Your task to perform on an android device: change keyboard looks Image 0: 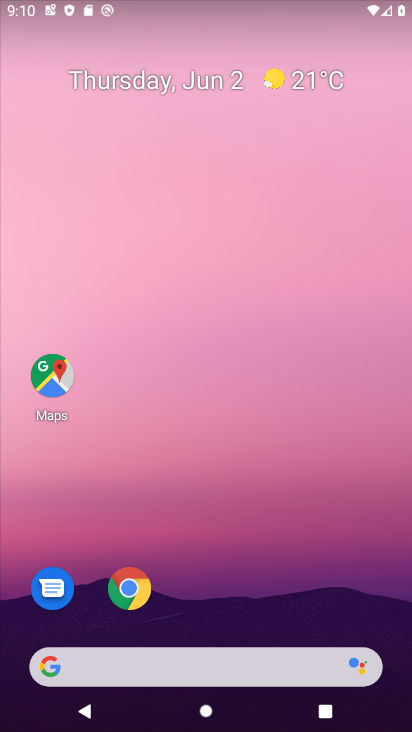
Step 0: click (402, 506)
Your task to perform on an android device: change keyboard looks Image 1: 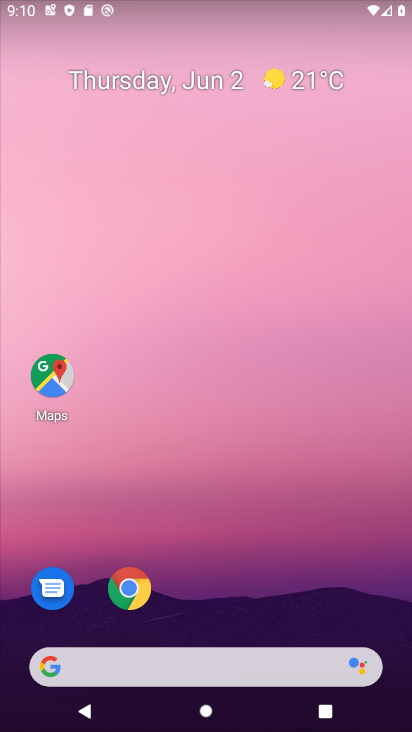
Step 1: drag from (224, 660) to (237, 64)
Your task to perform on an android device: change keyboard looks Image 2: 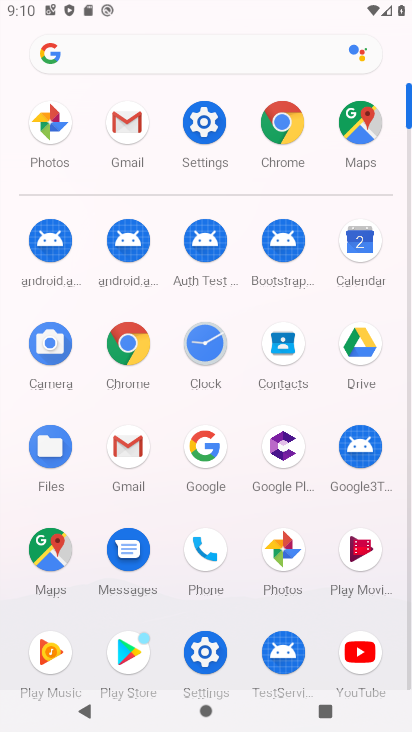
Step 2: click (207, 128)
Your task to perform on an android device: change keyboard looks Image 3: 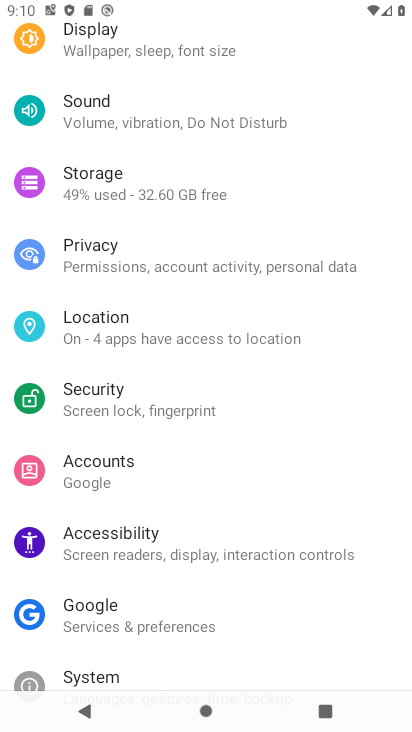
Step 3: drag from (202, 563) to (236, 56)
Your task to perform on an android device: change keyboard looks Image 4: 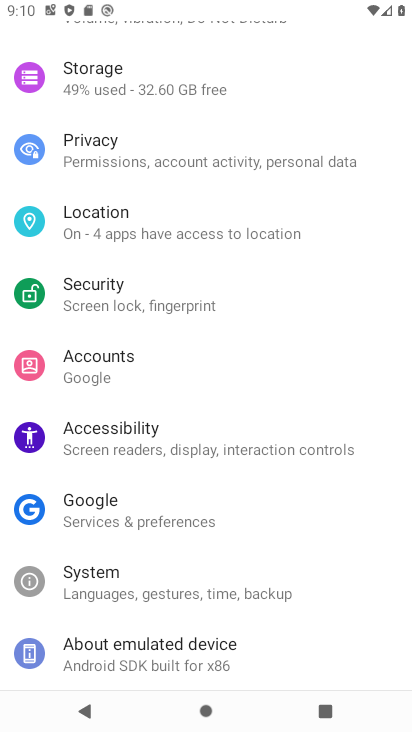
Step 4: click (98, 569)
Your task to perform on an android device: change keyboard looks Image 5: 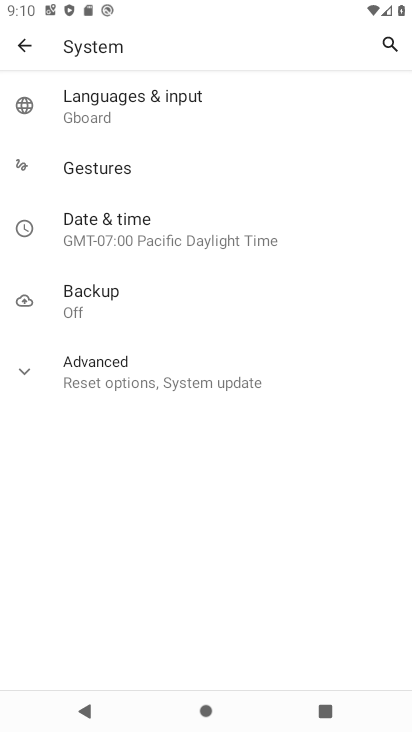
Step 5: click (131, 112)
Your task to perform on an android device: change keyboard looks Image 6: 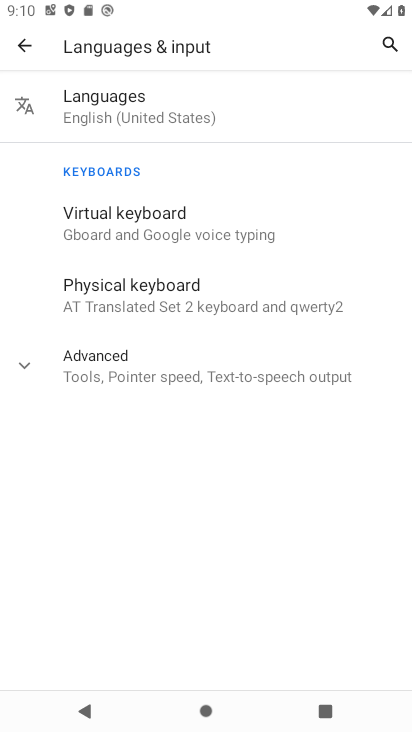
Step 6: click (173, 238)
Your task to perform on an android device: change keyboard looks Image 7: 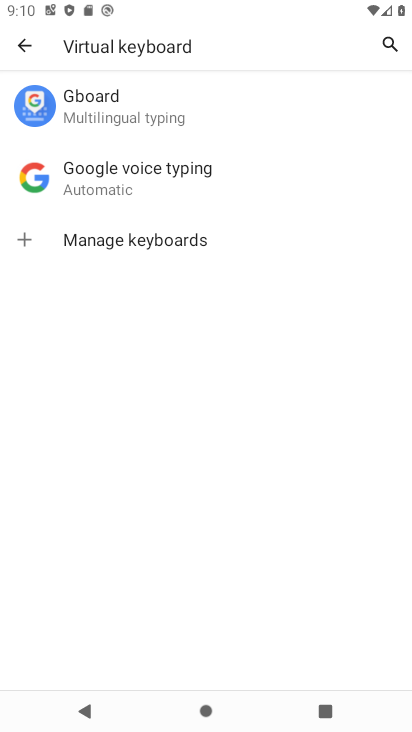
Step 7: click (168, 121)
Your task to perform on an android device: change keyboard looks Image 8: 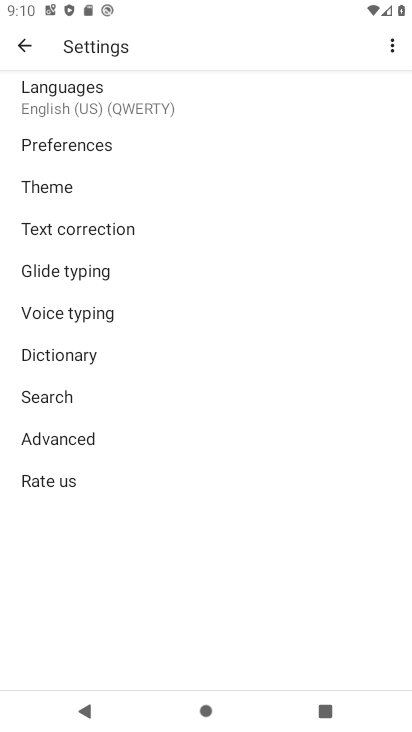
Step 8: click (124, 187)
Your task to perform on an android device: change keyboard looks Image 9: 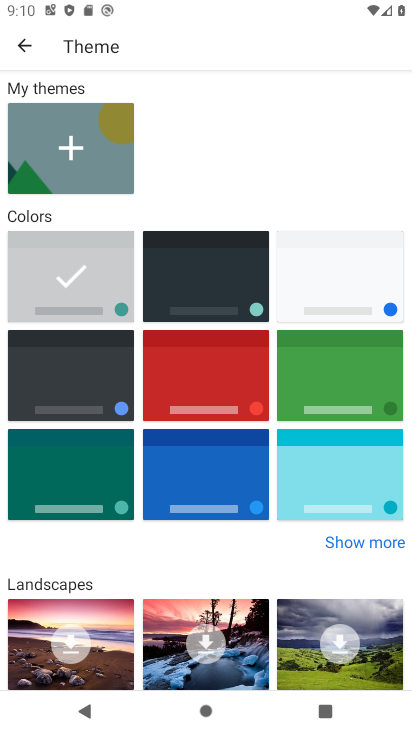
Step 9: click (199, 366)
Your task to perform on an android device: change keyboard looks Image 10: 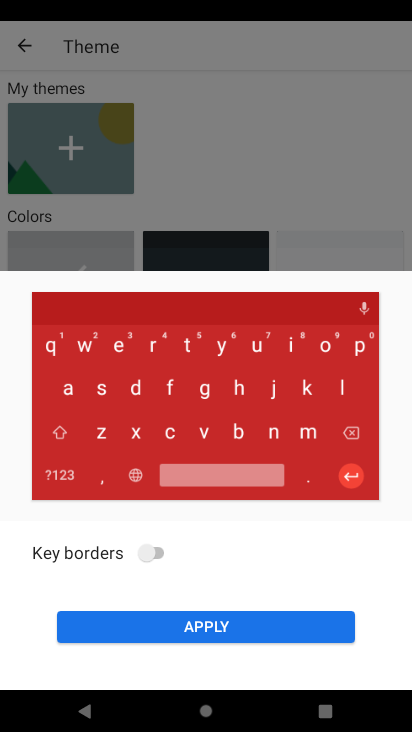
Step 10: click (239, 621)
Your task to perform on an android device: change keyboard looks Image 11: 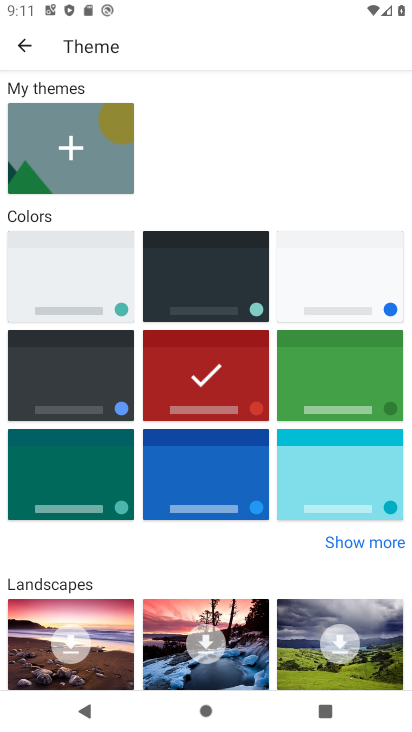
Step 11: task complete